Your task to perform on an android device: Is it going to rain today? Image 0: 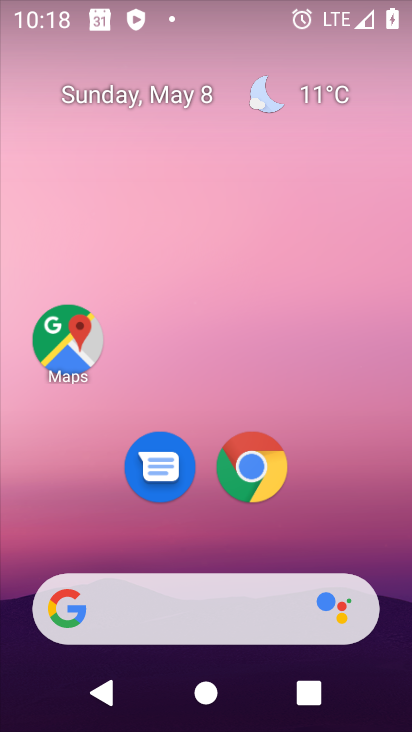
Step 0: click (186, 603)
Your task to perform on an android device: Is it going to rain today? Image 1: 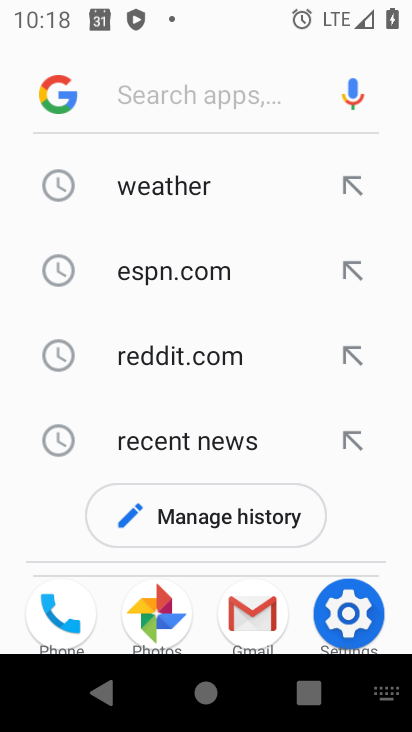
Step 1: click (127, 175)
Your task to perform on an android device: Is it going to rain today? Image 2: 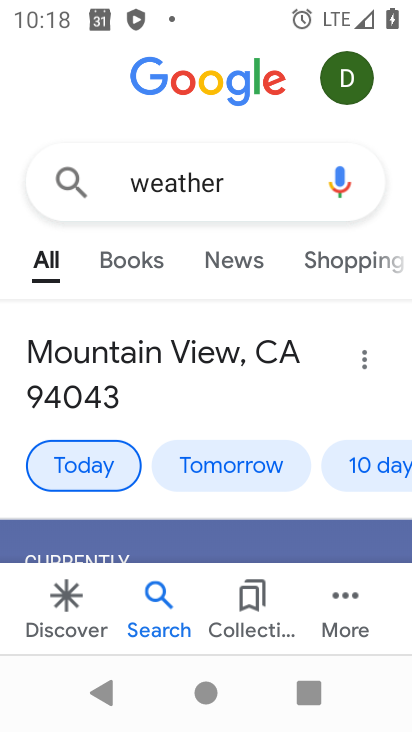
Step 2: task complete